Your task to perform on an android device: turn off translation in the chrome app Image 0: 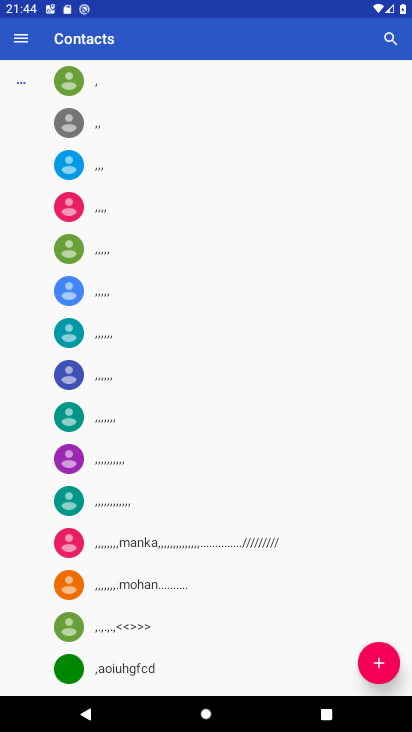
Step 0: press back button
Your task to perform on an android device: turn off translation in the chrome app Image 1: 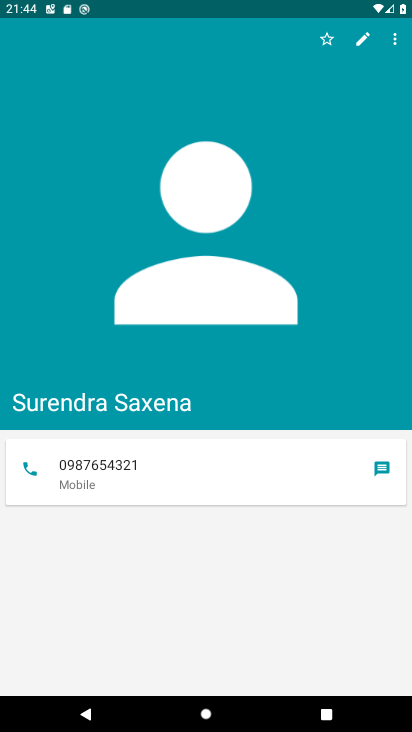
Step 1: press back button
Your task to perform on an android device: turn off translation in the chrome app Image 2: 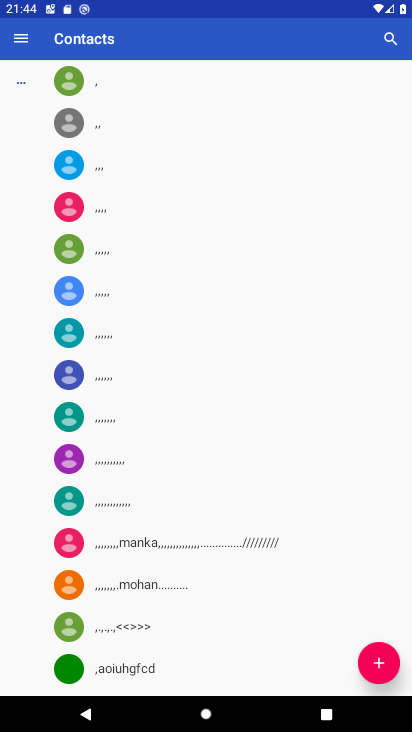
Step 2: press back button
Your task to perform on an android device: turn off translation in the chrome app Image 3: 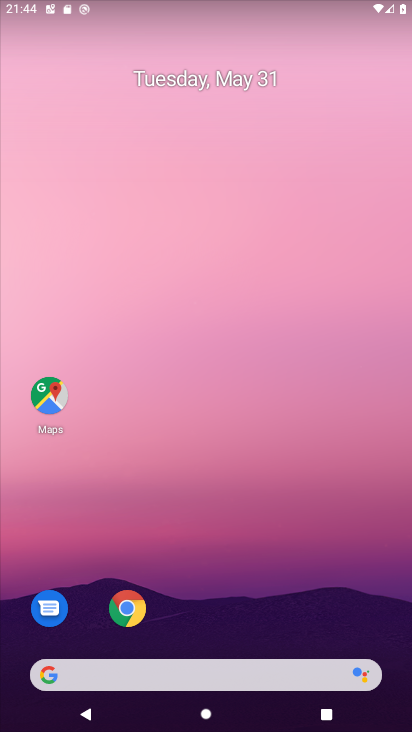
Step 3: click (129, 611)
Your task to perform on an android device: turn off translation in the chrome app Image 4: 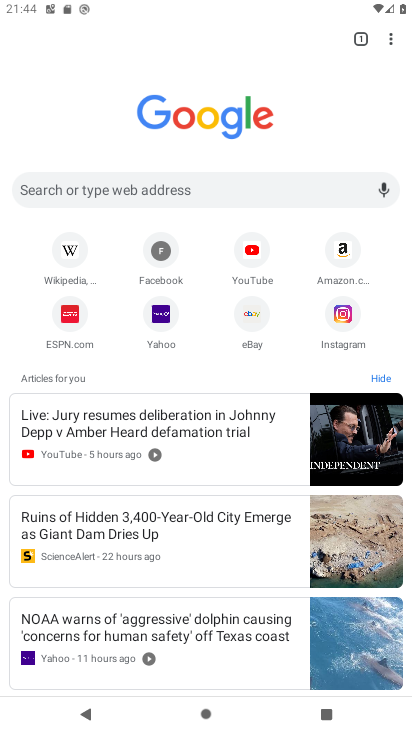
Step 4: click (391, 38)
Your task to perform on an android device: turn off translation in the chrome app Image 5: 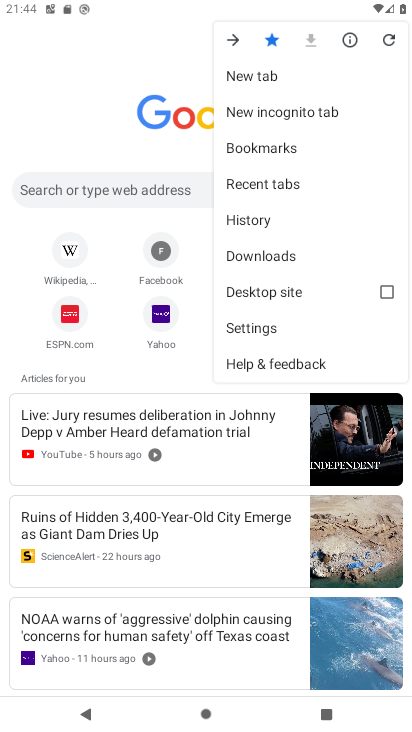
Step 5: click (261, 331)
Your task to perform on an android device: turn off translation in the chrome app Image 6: 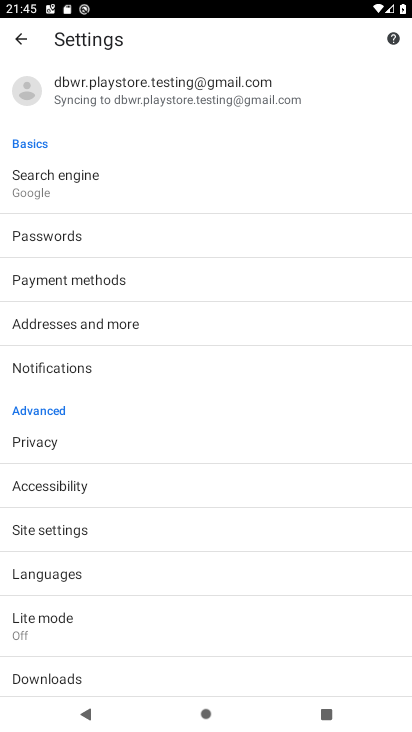
Step 6: click (56, 574)
Your task to perform on an android device: turn off translation in the chrome app Image 7: 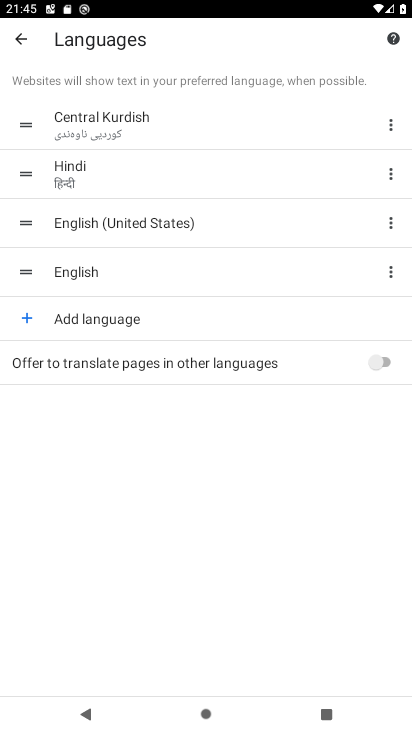
Step 7: task complete